Your task to perform on an android device: open app "YouTube Kids" Image 0: 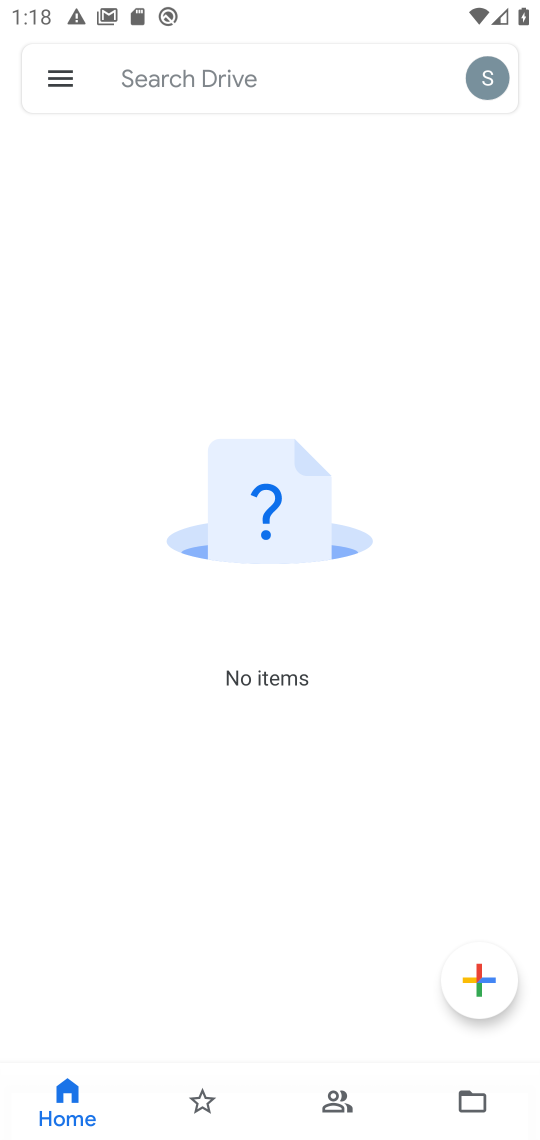
Step 0: press home button
Your task to perform on an android device: open app "YouTube Kids" Image 1: 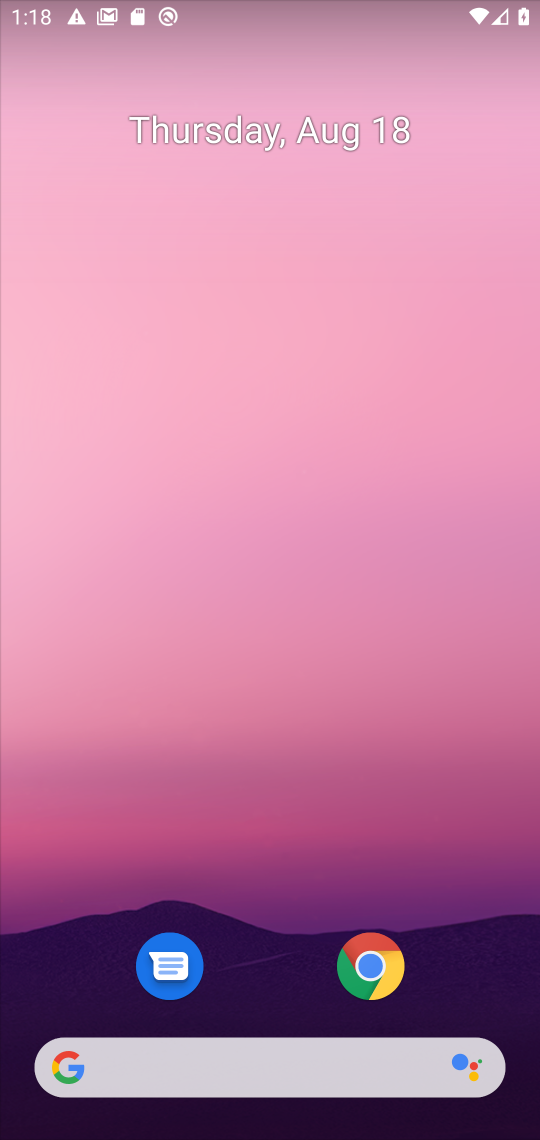
Step 1: drag from (288, 1004) to (128, 35)
Your task to perform on an android device: open app "YouTube Kids" Image 2: 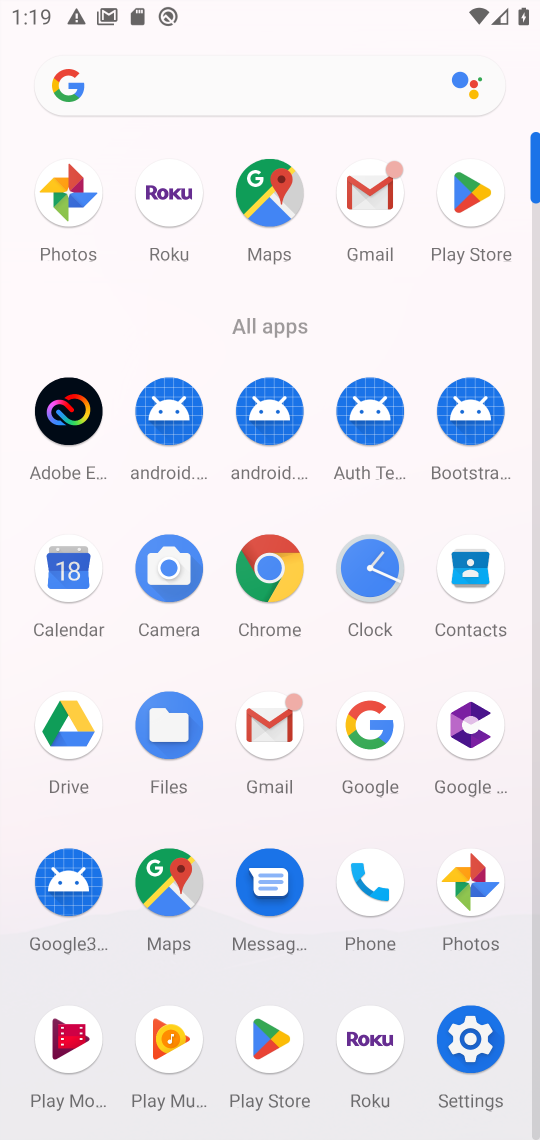
Step 2: click (262, 1052)
Your task to perform on an android device: open app "YouTube Kids" Image 3: 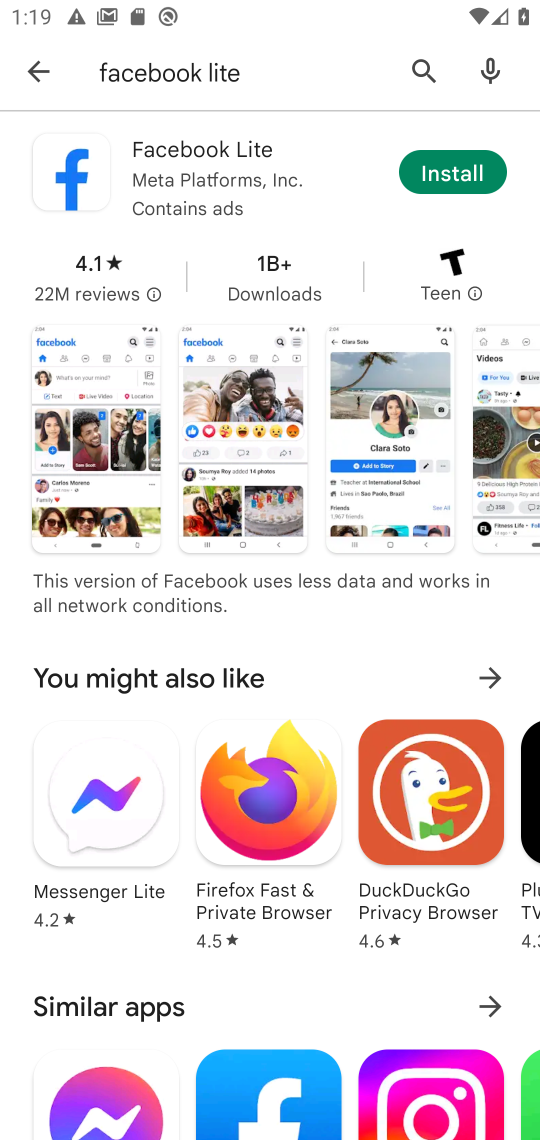
Step 3: click (49, 59)
Your task to perform on an android device: open app "YouTube Kids" Image 4: 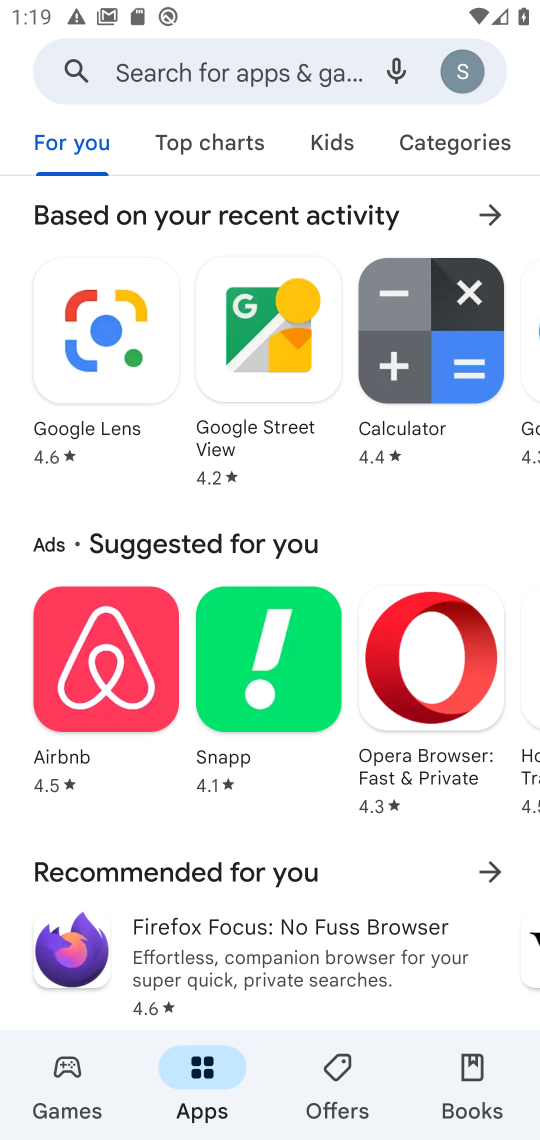
Step 4: click (224, 75)
Your task to perform on an android device: open app "YouTube Kids" Image 5: 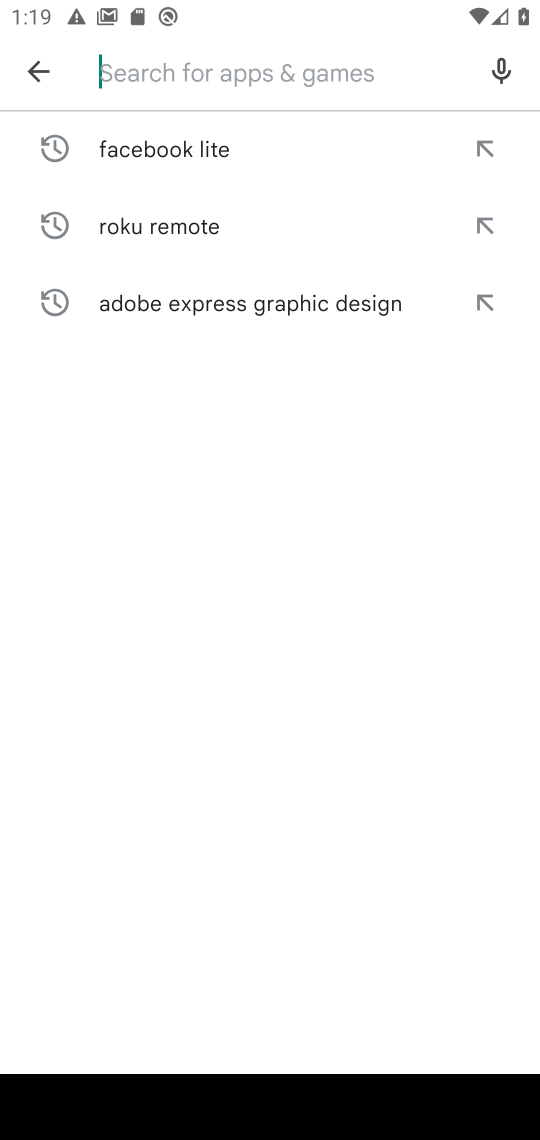
Step 5: type "YouTube Kids"
Your task to perform on an android device: open app "YouTube Kids" Image 6: 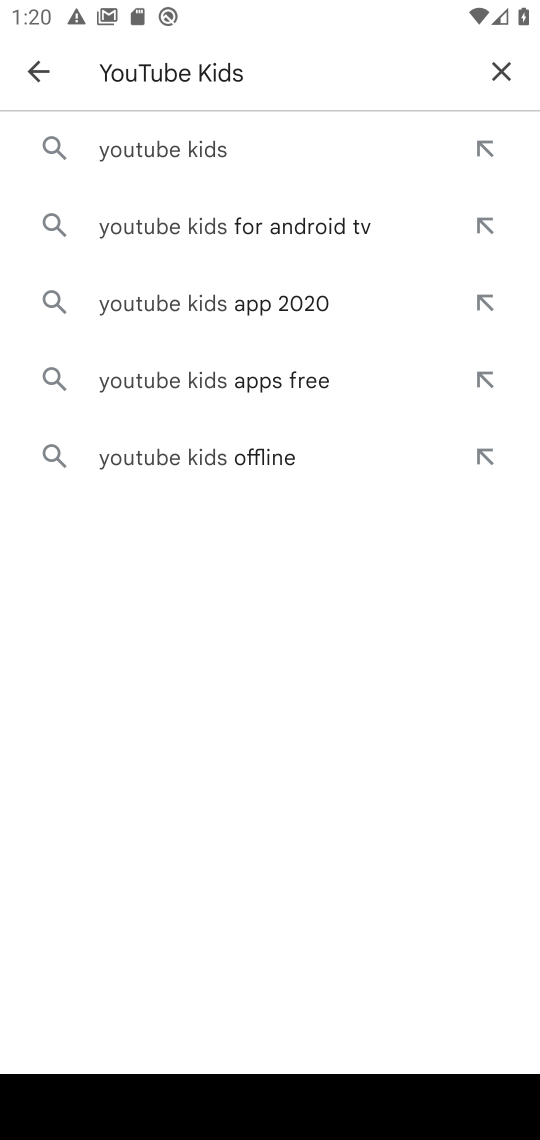
Step 6: click (229, 157)
Your task to perform on an android device: open app "YouTube Kids" Image 7: 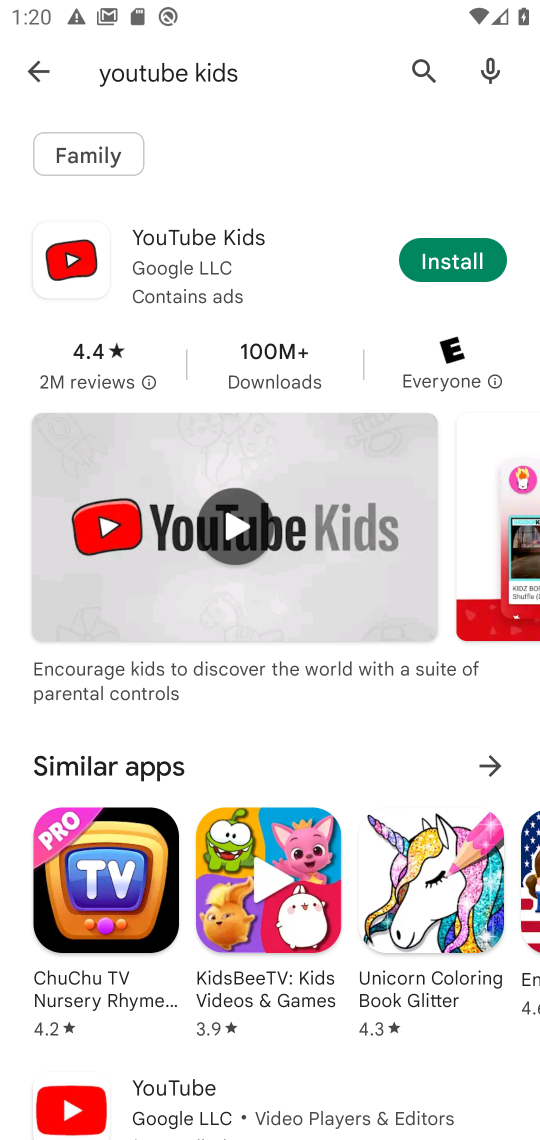
Step 7: task complete